Your task to perform on an android device: Open Google Chrome and click the shortcut for Amazon.com Image 0: 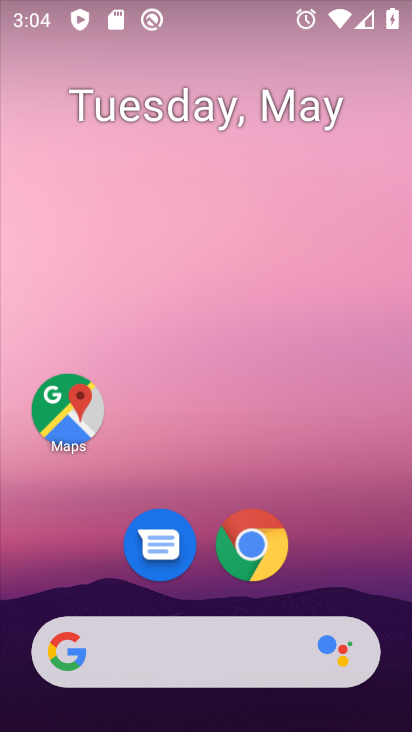
Step 0: click (251, 544)
Your task to perform on an android device: Open Google Chrome and click the shortcut for Amazon.com Image 1: 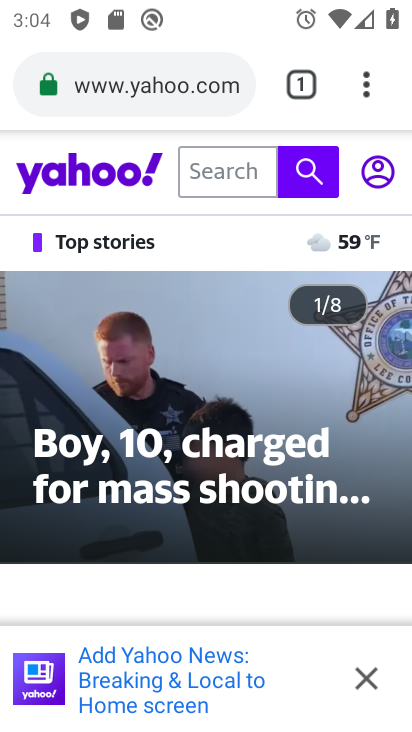
Step 1: click (173, 88)
Your task to perform on an android device: Open Google Chrome and click the shortcut for Amazon.com Image 2: 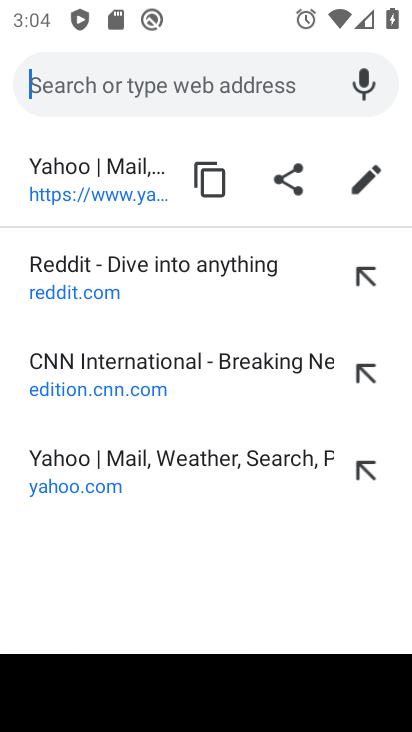
Step 2: type "amazon.com"
Your task to perform on an android device: Open Google Chrome and click the shortcut for Amazon.com Image 3: 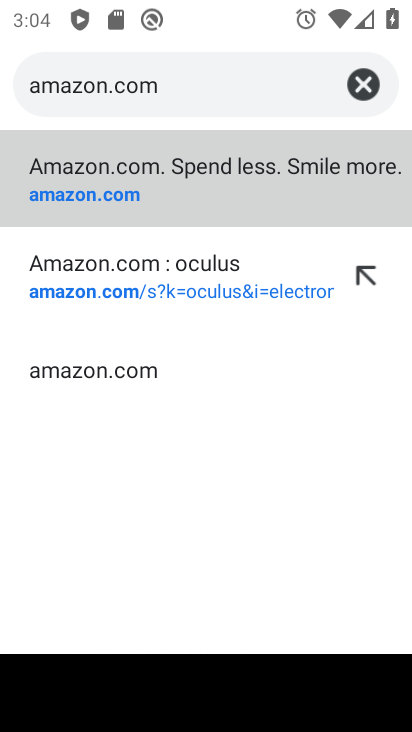
Step 3: click (201, 196)
Your task to perform on an android device: Open Google Chrome and click the shortcut for Amazon.com Image 4: 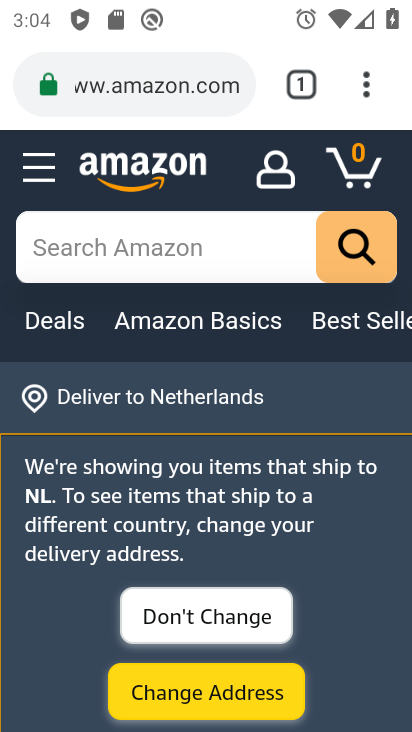
Step 4: task complete